Your task to perform on an android device: set the timer Image 0: 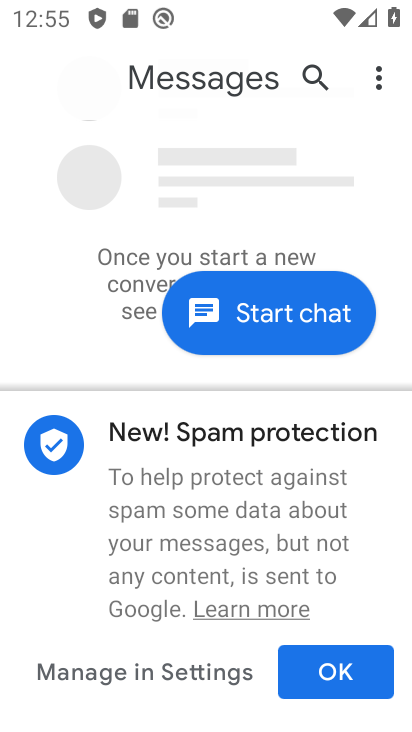
Step 0: press home button
Your task to perform on an android device: set the timer Image 1: 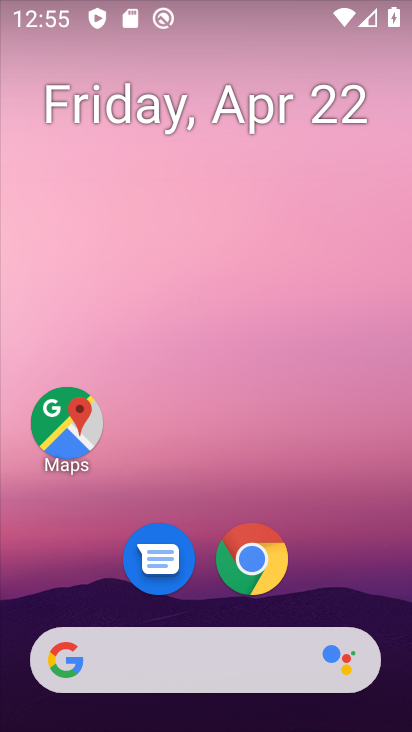
Step 1: drag from (213, 596) to (217, 181)
Your task to perform on an android device: set the timer Image 2: 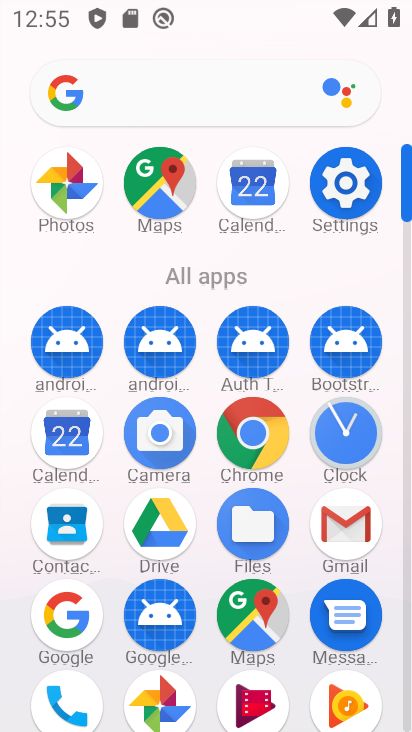
Step 2: click (350, 436)
Your task to perform on an android device: set the timer Image 3: 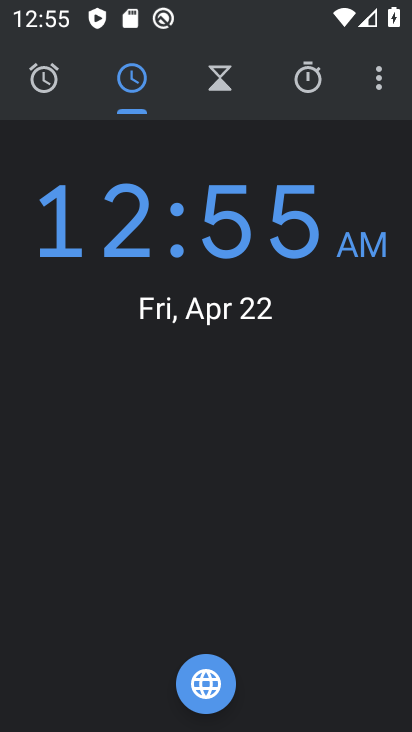
Step 3: click (384, 75)
Your task to perform on an android device: set the timer Image 4: 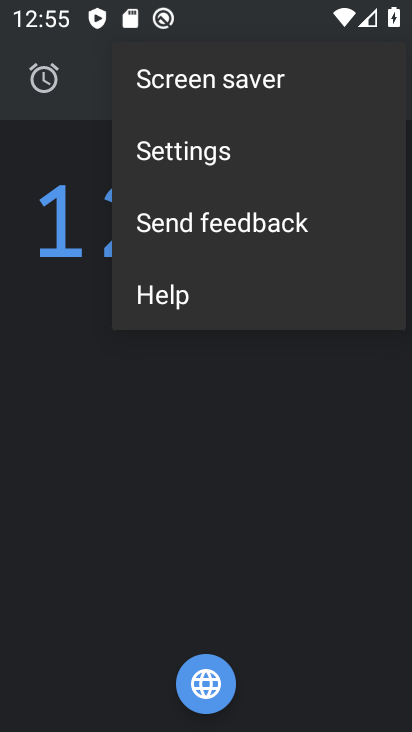
Step 4: click (182, 154)
Your task to perform on an android device: set the timer Image 5: 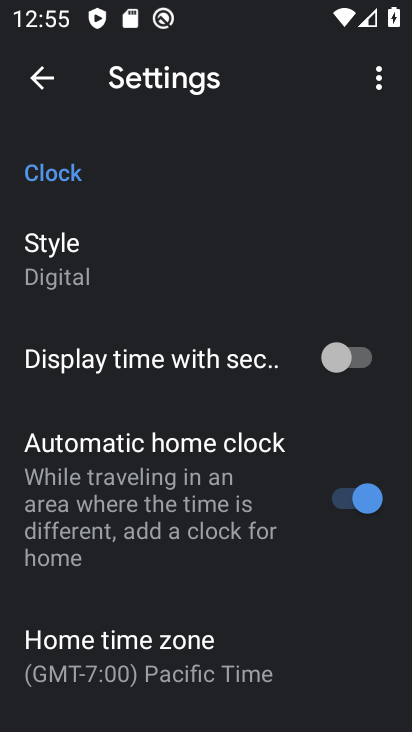
Step 5: click (42, 83)
Your task to perform on an android device: set the timer Image 6: 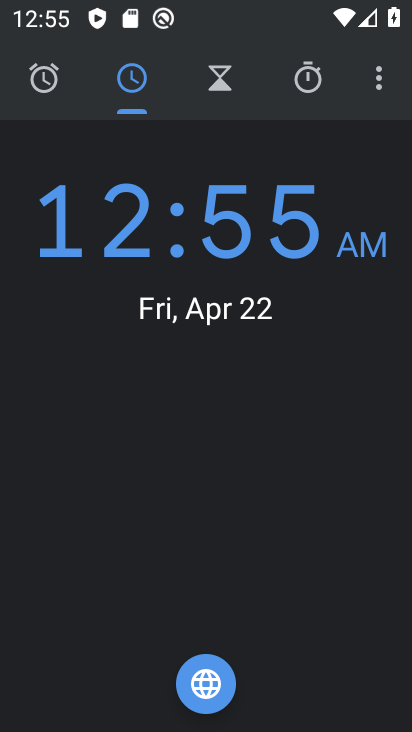
Step 6: click (215, 83)
Your task to perform on an android device: set the timer Image 7: 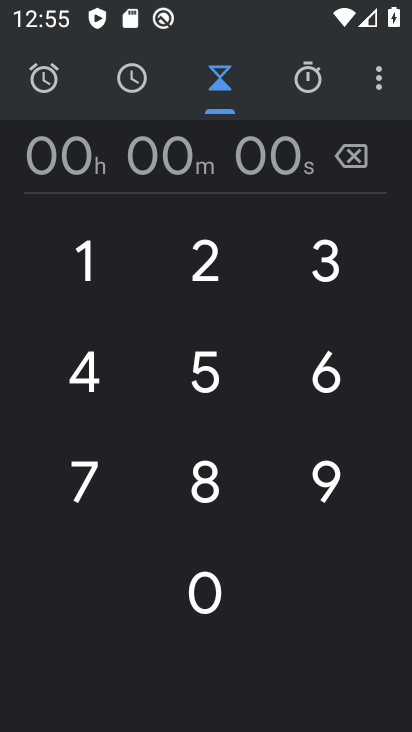
Step 7: click (213, 574)
Your task to perform on an android device: set the timer Image 8: 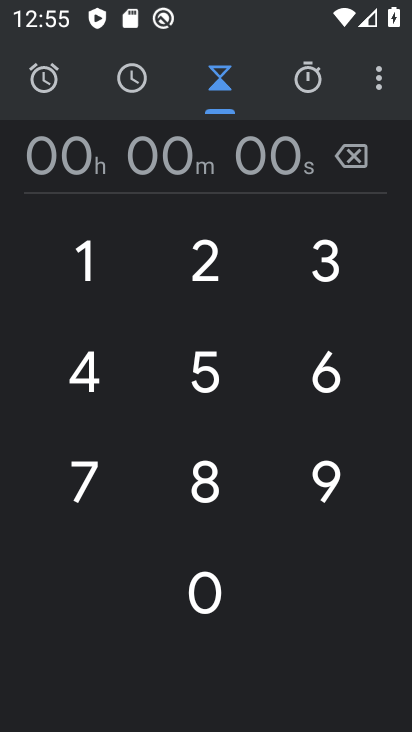
Step 8: click (108, 257)
Your task to perform on an android device: set the timer Image 9: 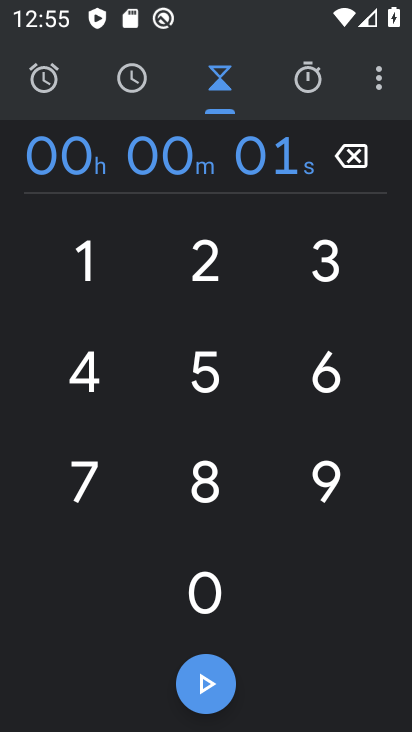
Step 9: click (216, 590)
Your task to perform on an android device: set the timer Image 10: 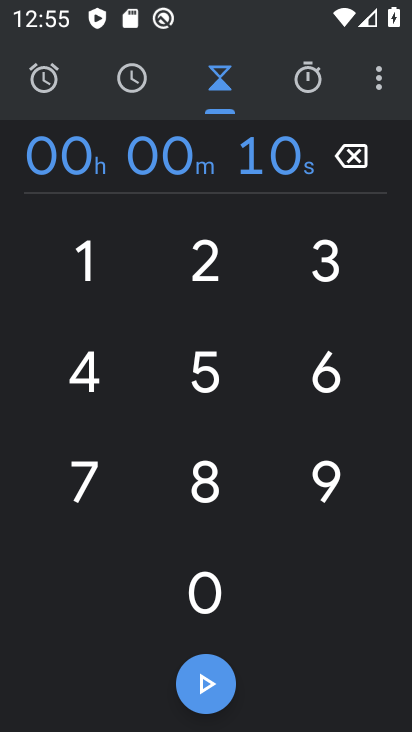
Step 10: click (198, 278)
Your task to perform on an android device: set the timer Image 11: 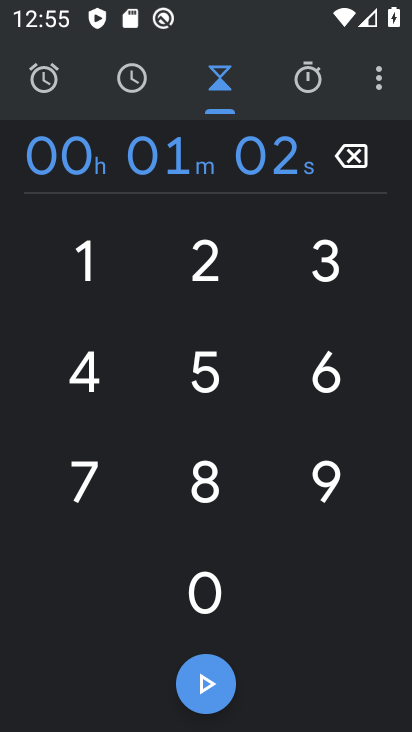
Step 11: click (202, 589)
Your task to perform on an android device: set the timer Image 12: 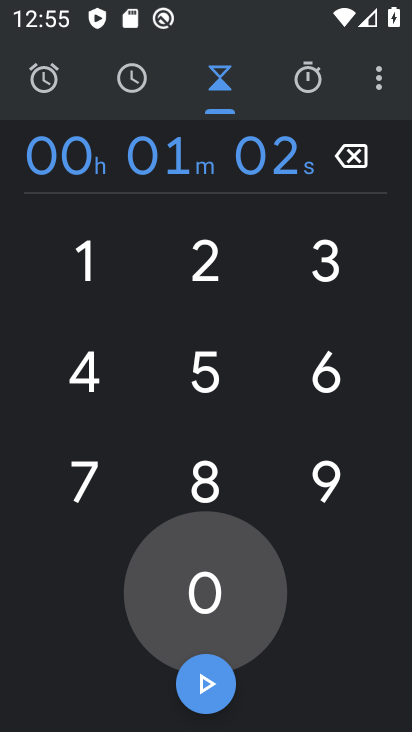
Step 12: click (328, 264)
Your task to perform on an android device: set the timer Image 13: 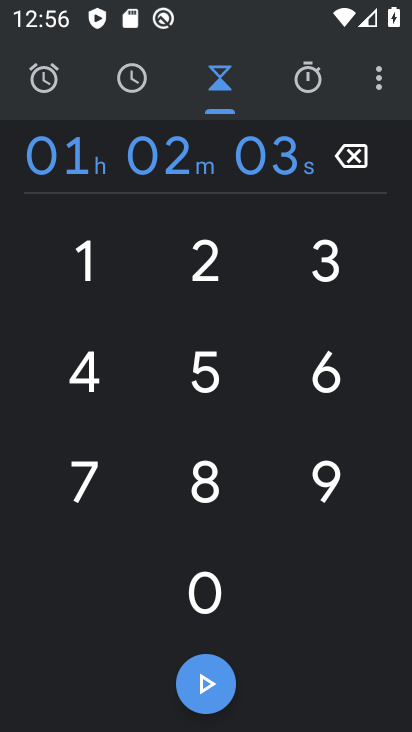
Step 13: click (212, 688)
Your task to perform on an android device: set the timer Image 14: 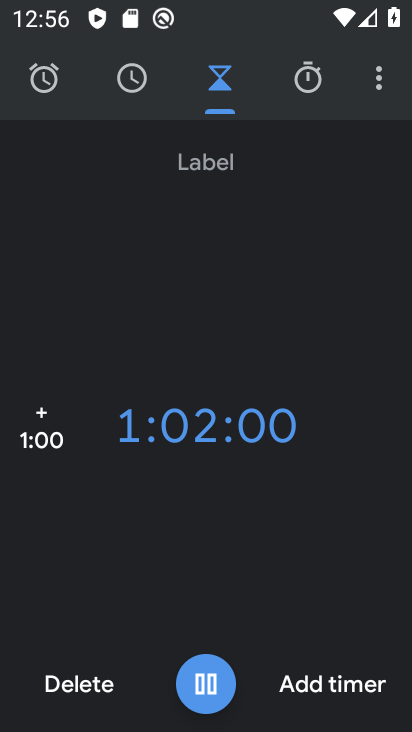
Step 14: task complete